Your task to perform on an android device: open a bookmark in the chrome app Image 0: 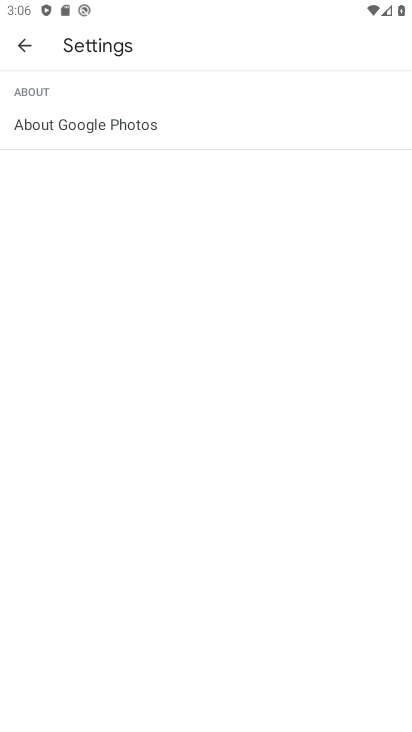
Step 0: press home button
Your task to perform on an android device: open a bookmark in the chrome app Image 1: 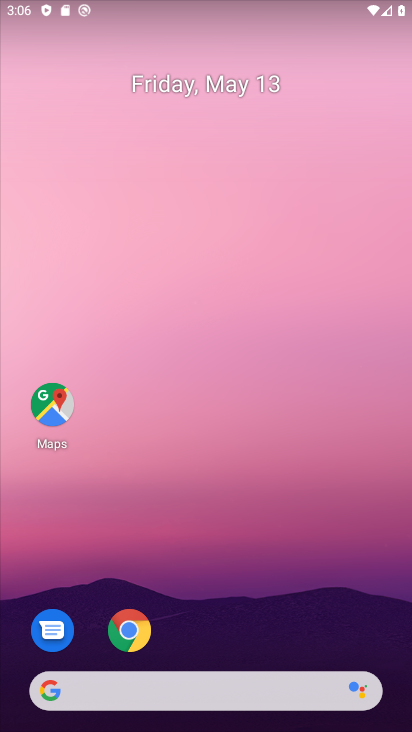
Step 1: click (122, 630)
Your task to perform on an android device: open a bookmark in the chrome app Image 2: 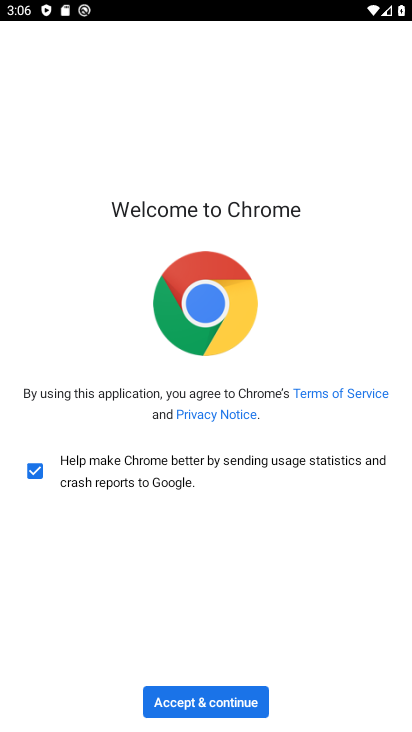
Step 2: click (173, 693)
Your task to perform on an android device: open a bookmark in the chrome app Image 3: 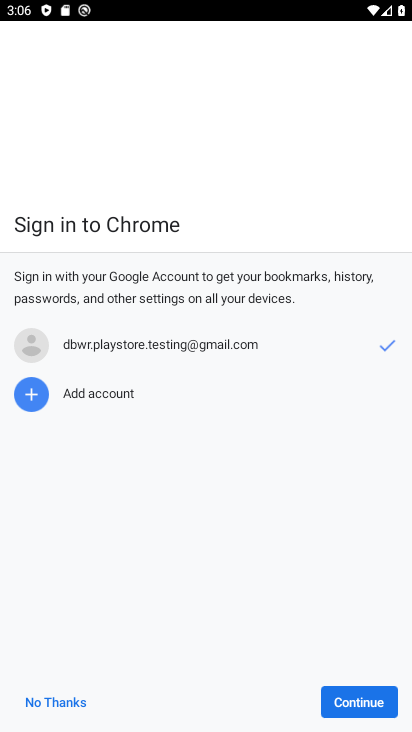
Step 3: click (382, 685)
Your task to perform on an android device: open a bookmark in the chrome app Image 4: 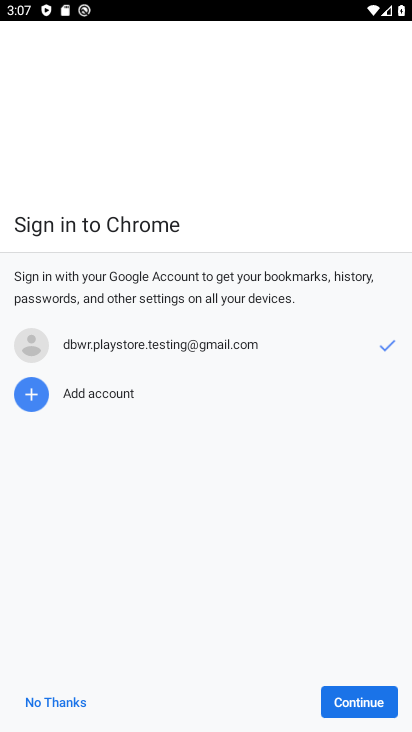
Step 4: click (370, 695)
Your task to perform on an android device: open a bookmark in the chrome app Image 5: 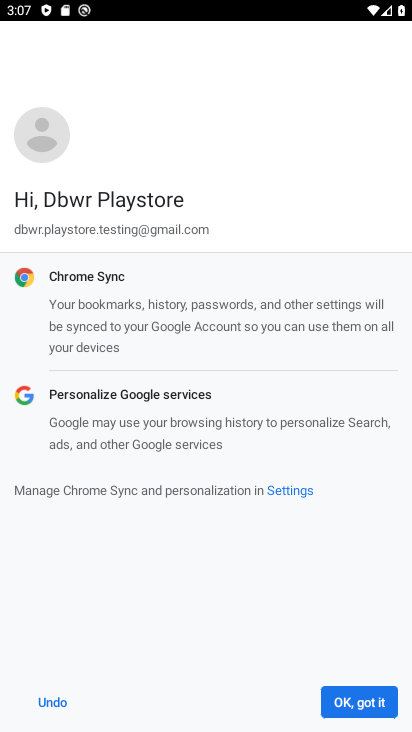
Step 5: click (370, 694)
Your task to perform on an android device: open a bookmark in the chrome app Image 6: 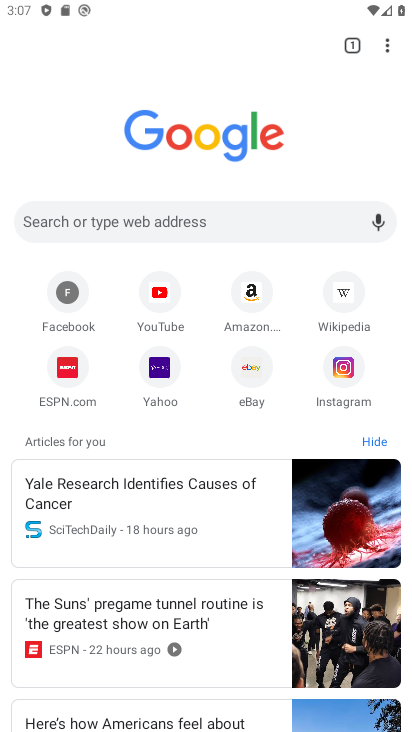
Step 6: task complete